Your task to perform on an android device: turn on the 24-hour format for clock Image 0: 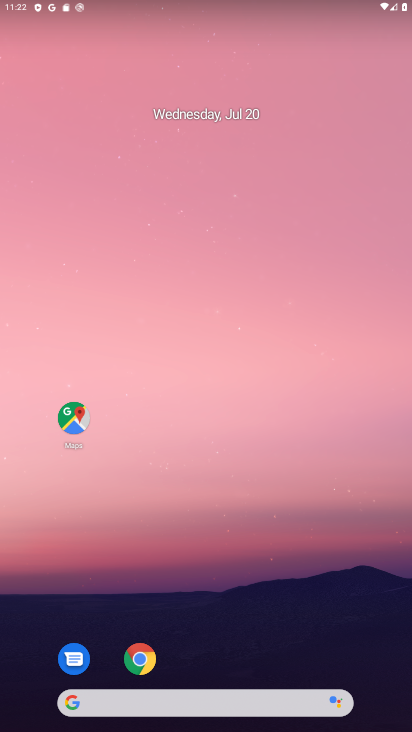
Step 0: drag from (366, 654) to (312, 63)
Your task to perform on an android device: turn on the 24-hour format for clock Image 1: 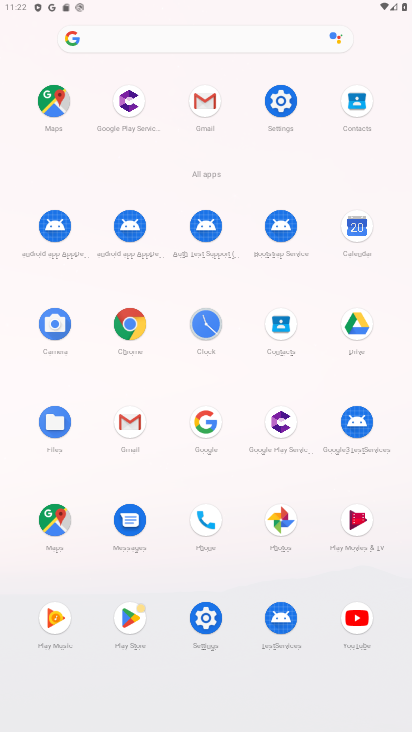
Step 1: click (205, 325)
Your task to perform on an android device: turn on the 24-hour format for clock Image 2: 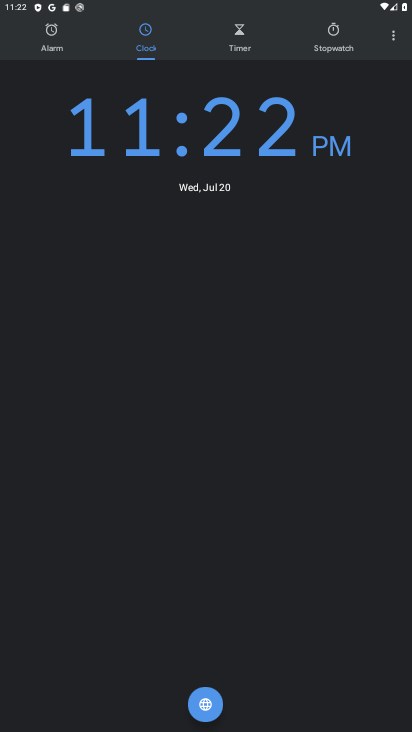
Step 2: click (393, 43)
Your task to perform on an android device: turn on the 24-hour format for clock Image 3: 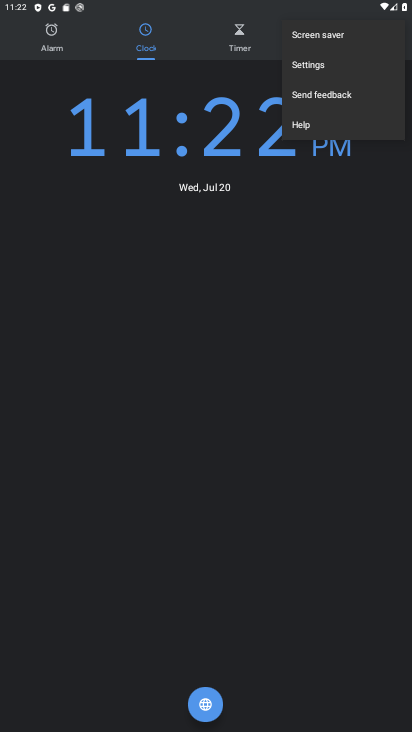
Step 3: click (297, 55)
Your task to perform on an android device: turn on the 24-hour format for clock Image 4: 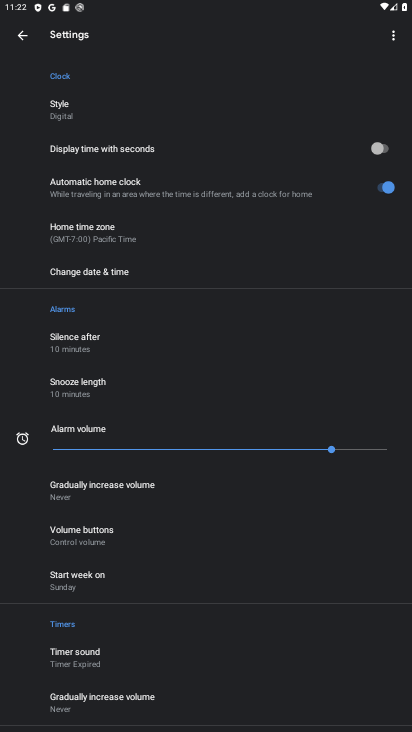
Step 4: click (114, 278)
Your task to perform on an android device: turn on the 24-hour format for clock Image 5: 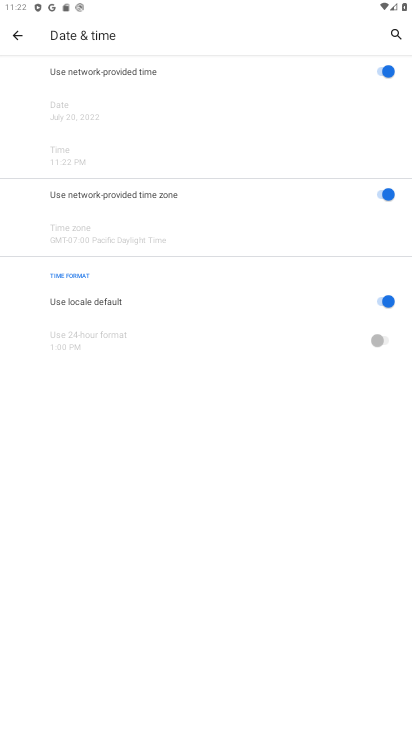
Step 5: click (377, 302)
Your task to perform on an android device: turn on the 24-hour format for clock Image 6: 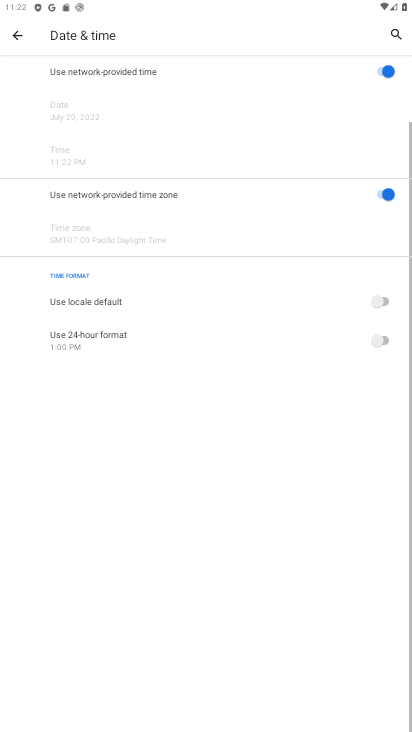
Step 6: click (386, 338)
Your task to perform on an android device: turn on the 24-hour format for clock Image 7: 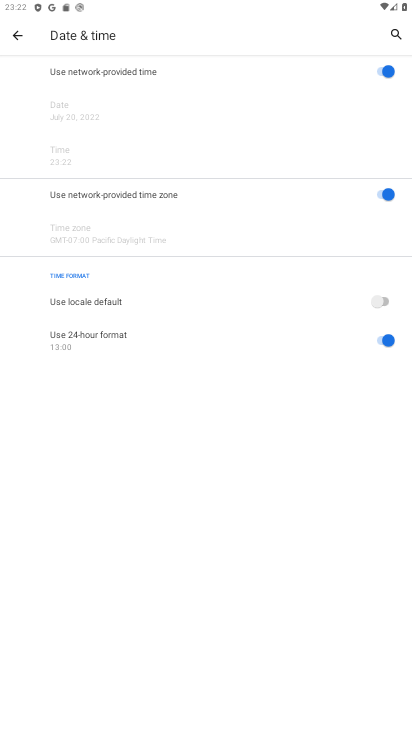
Step 7: task complete